Your task to perform on an android device: turn on translation in the chrome app Image 0: 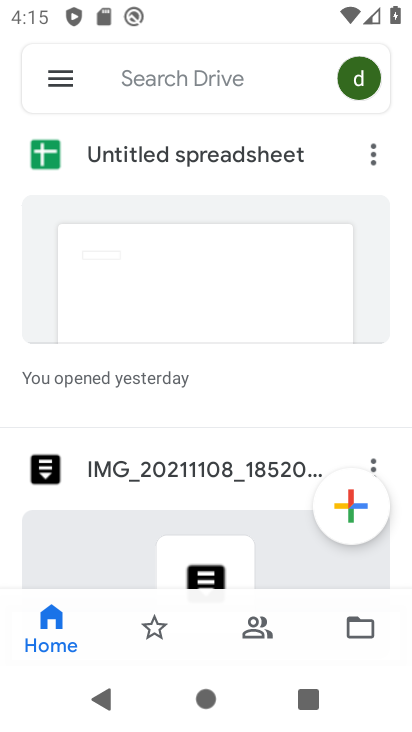
Step 0: press home button
Your task to perform on an android device: turn on translation in the chrome app Image 1: 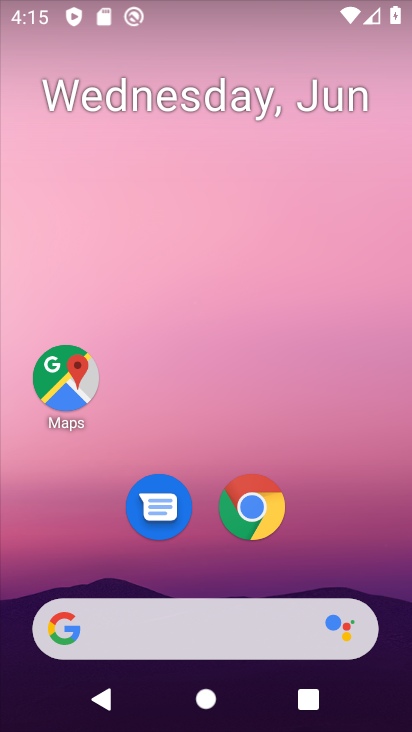
Step 1: drag from (90, 577) to (92, 103)
Your task to perform on an android device: turn on translation in the chrome app Image 2: 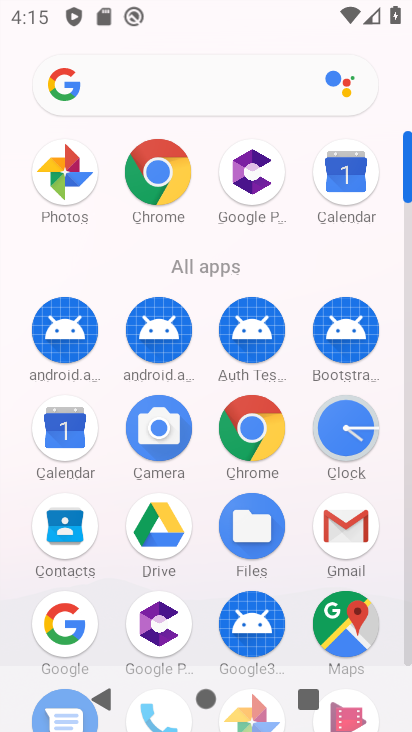
Step 2: drag from (185, 606) to (195, 434)
Your task to perform on an android device: turn on translation in the chrome app Image 3: 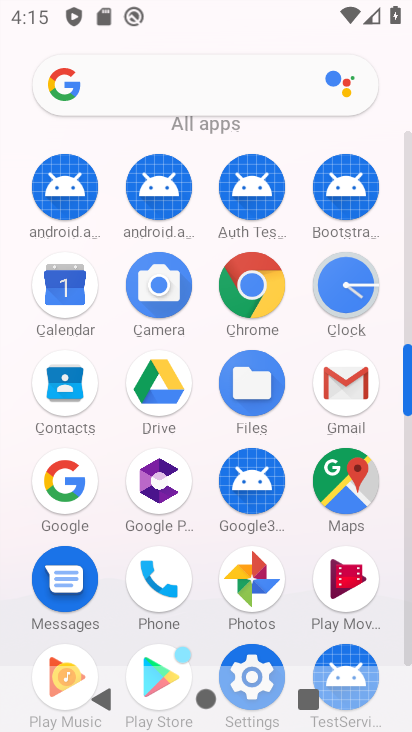
Step 3: click (256, 325)
Your task to perform on an android device: turn on translation in the chrome app Image 4: 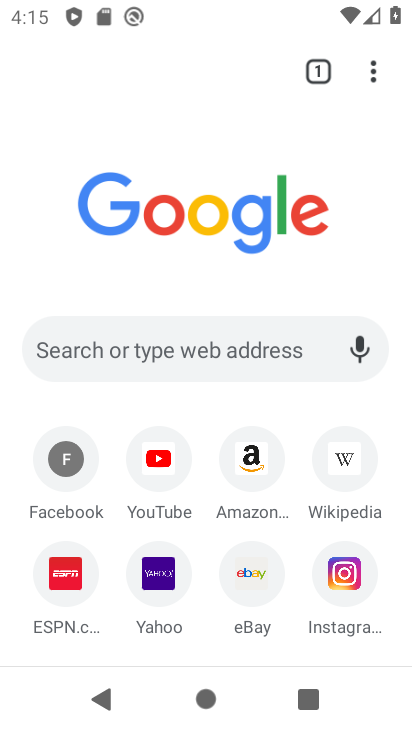
Step 4: drag from (369, 72) to (256, 502)
Your task to perform on an android device: turn on translation in the chrome app Image 5: 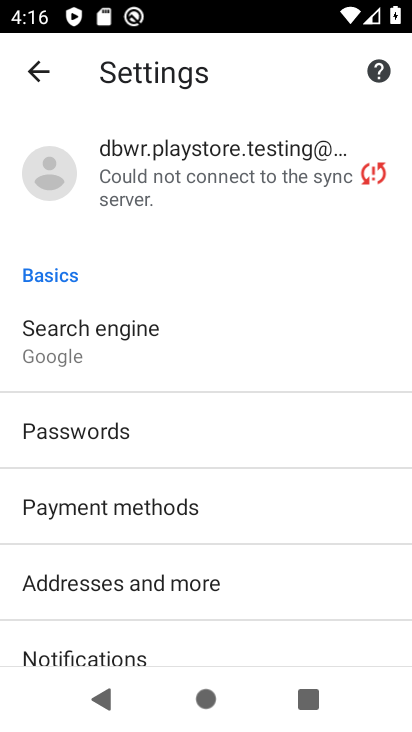
Step 5: drag from (161, 638) to (253, 314)
Your task to perform on an android device: turn on translation in the chrome app Image 6: 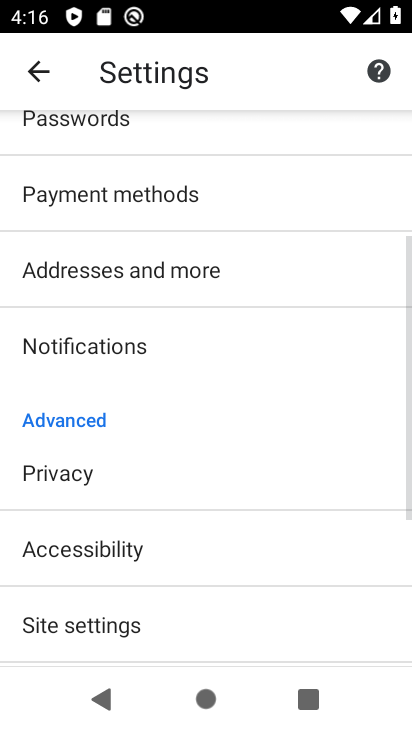
Step 6: drag from (192, 628) to (239, 396)
Your task to perform on an android device: turn on translation in the chrome app Image 7: 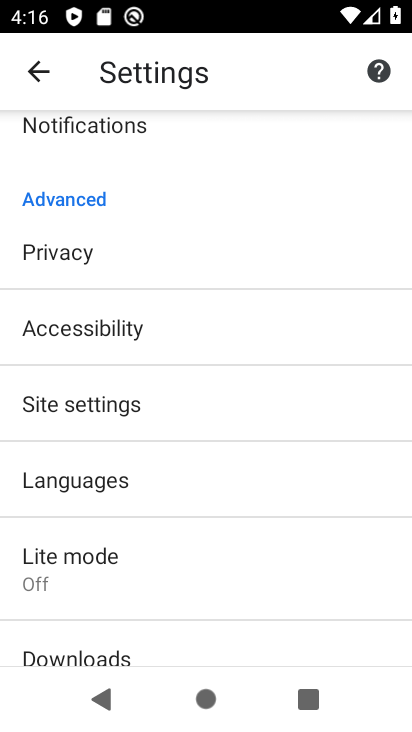
Step 7: click (143, 485)
Your task to perform on an android device: turn on translation in the chrome app Image 8: 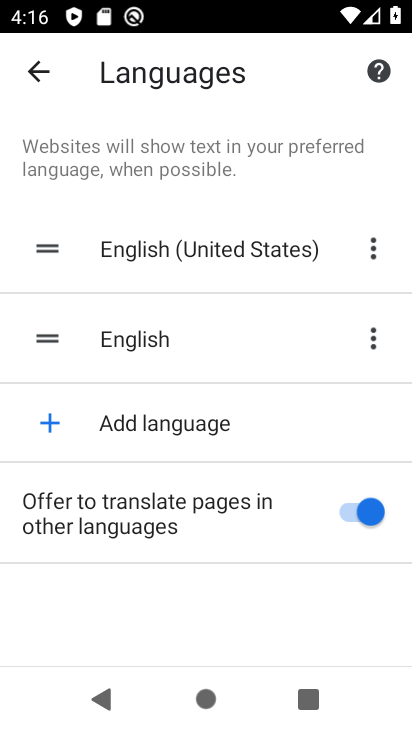
Step 8: task complete